Your task to perform on an android device: delete the emails in spam in the gmail app Image 0: 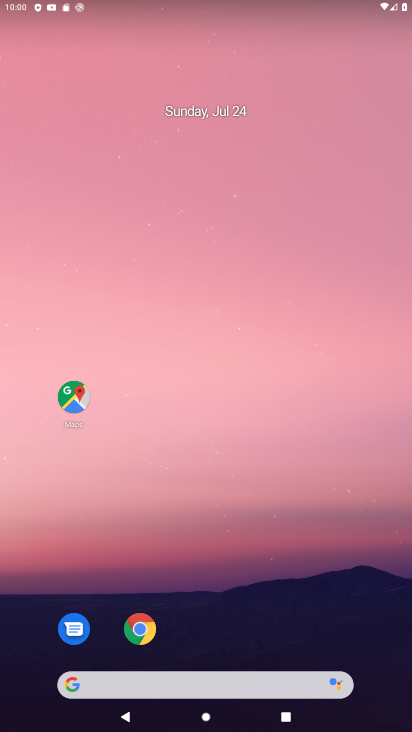
Step 0: drag from (196, 682) to (252, 31)
Your task to perform on an android device: delete the emails in spam in the gmail app Image 1: 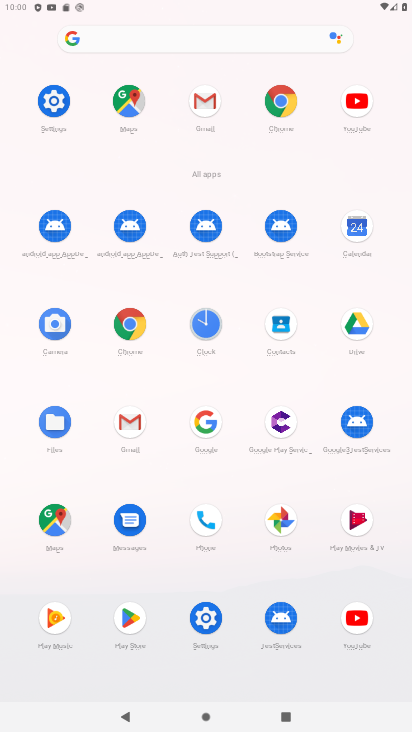
Step 1: click (206, 98)
Your task to perform on an android device: delete the emails in spam in the gmail app Image 2: 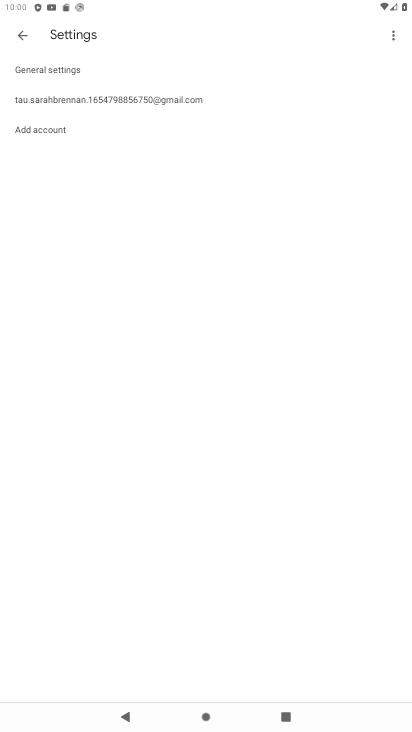
Step 2: press back button
Your task to perform on an android device: delete the emails in spam in the gmail app Image 3: 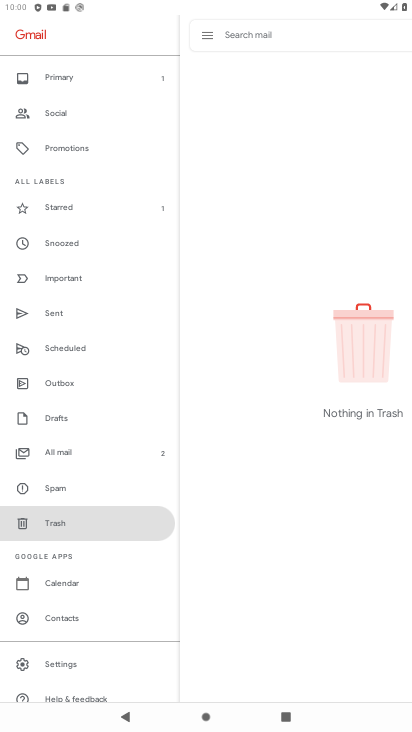
Step 3: click (57, 490)
Your task to perform on an android device: delete the emails in spam in the gmail app Image 4: 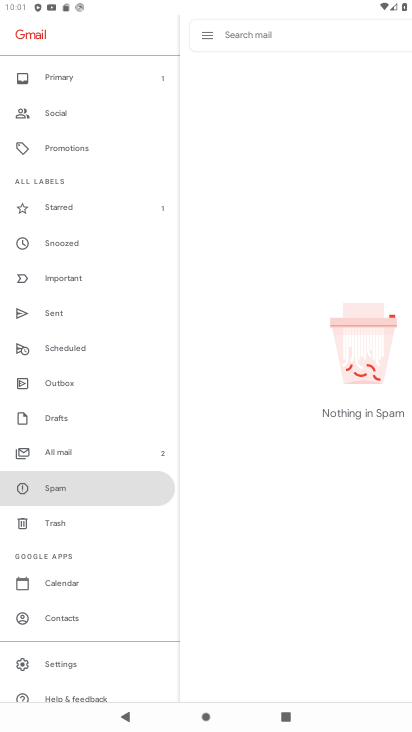
Step 4: task complete